Your task to perform on an android device: Open maps Image 0: 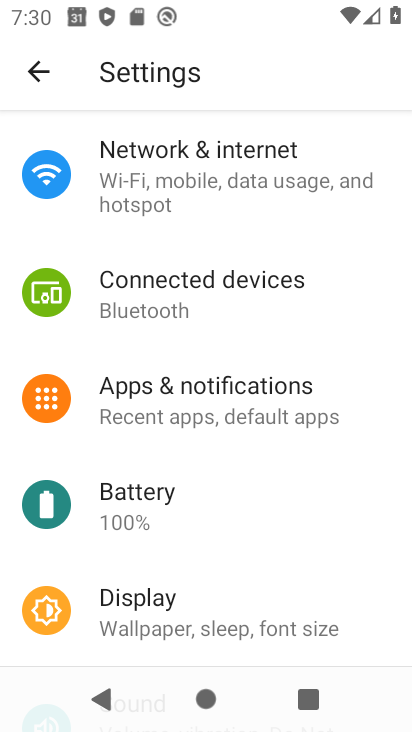
Step 0: press home button
Your task to perform on an android device: Open maps Image 1: 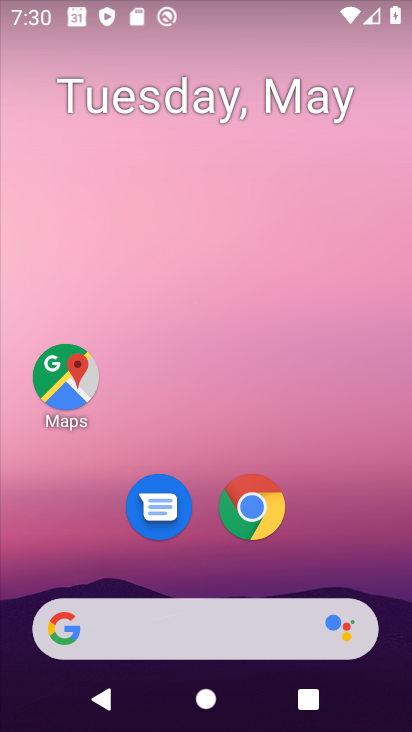
Step 1: drag from (204, 553) to (331, 60)
Your task to perform on an android device: Open maps Image 2: 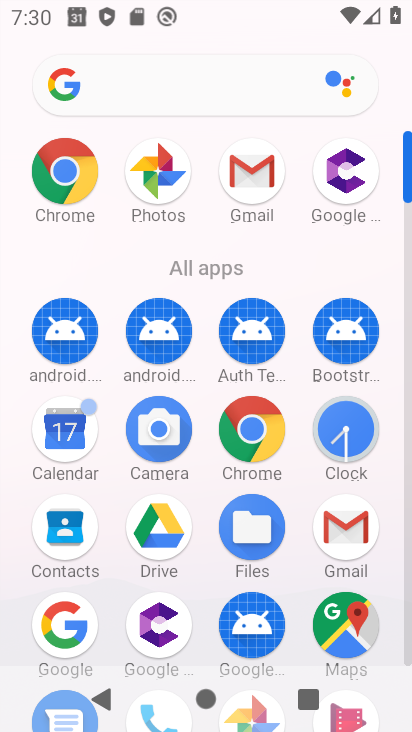
Step 2: click (362, 628)
Your task to perform on an android device: Open maps Image 3: 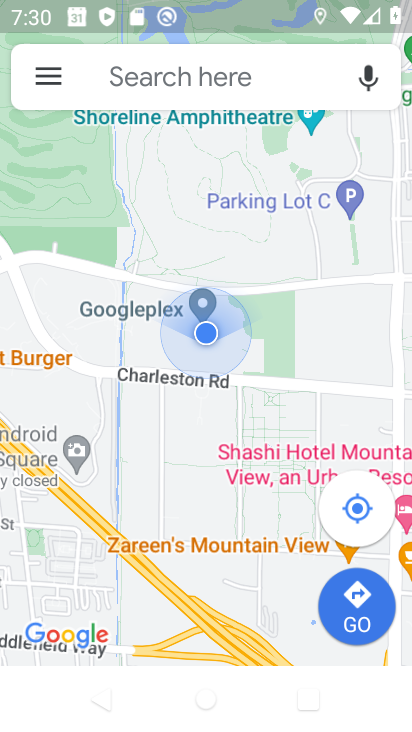
Step 3: task complete